Your task to perform on an android device: toggle improve location accuracy Image 0: 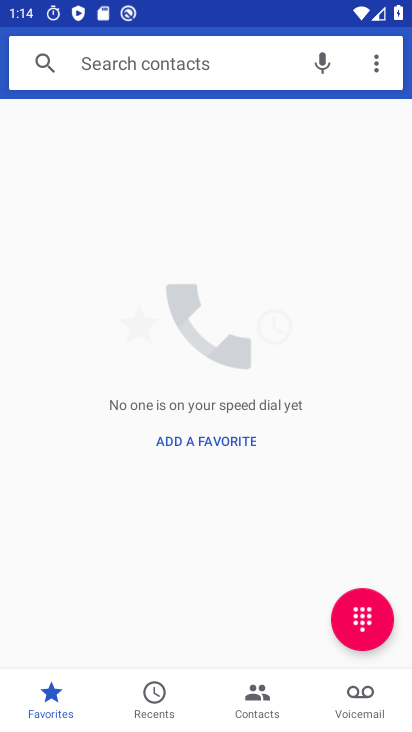
Step 0: press home button
Your task to perform on an android device: toggle improve location accuracy Image 1: 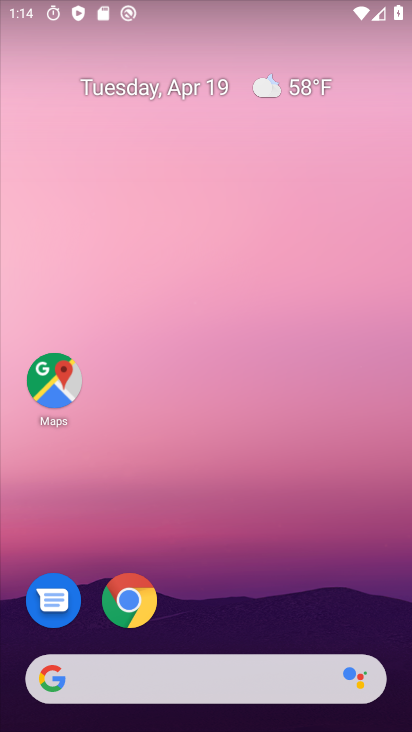
Step 1: drag from (273, 692) to (389, 301)
Your task to perform on an android device: toggle improve location accuracy Image 2: 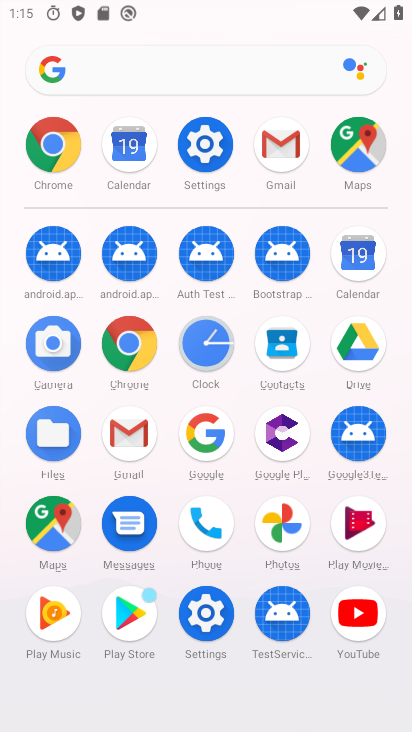
Step 2: click (204, 597)
Your task to perform on an android device: toggle improve location accuracy Image 3: 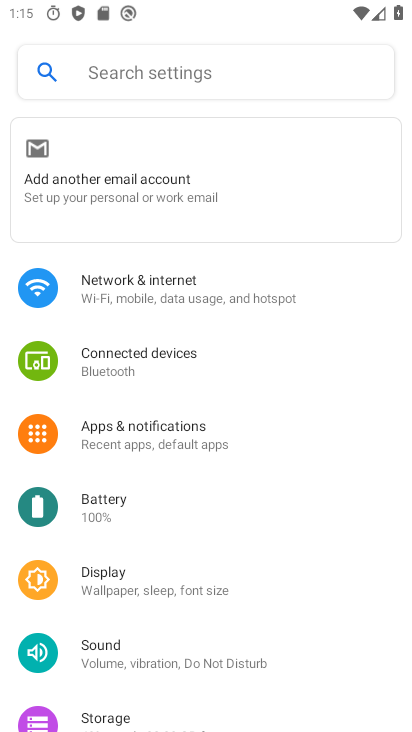
Step 3: click (180, 77)
Your task to perform on an android device: toggle improve location accuracy Image 4: 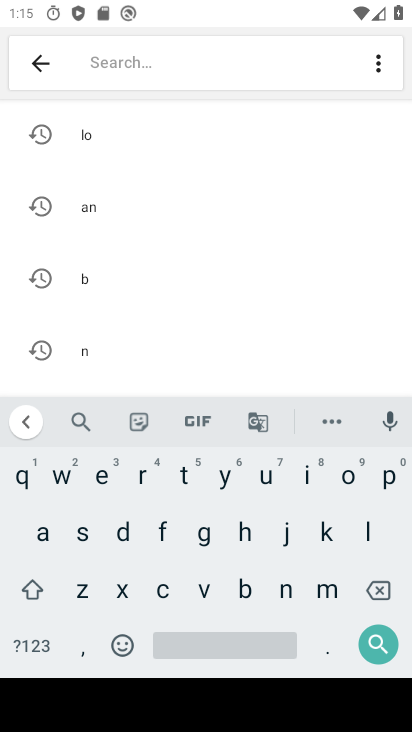
Step 4: click (123, 148)
Your task to perform on an android device: toggle improve location accuracy Image 5: 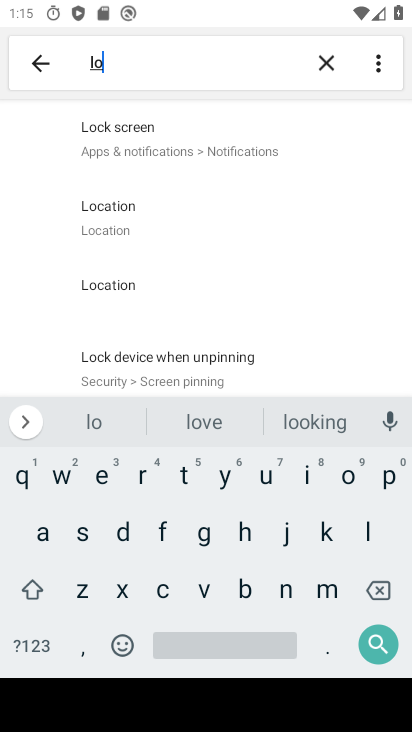
Step 5: click (119, 230)
Your task to perform on an android device: toggle improve location accuracy Image 6: 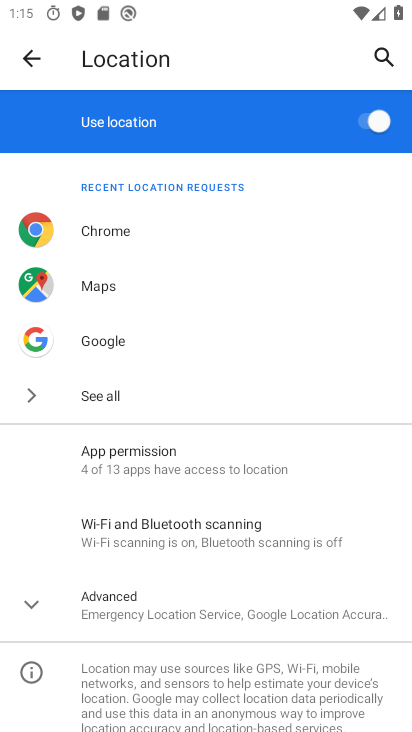
Step 6: click (42, 596)
Your task to perform on an android device: toggle improve location accuracy Image 7: 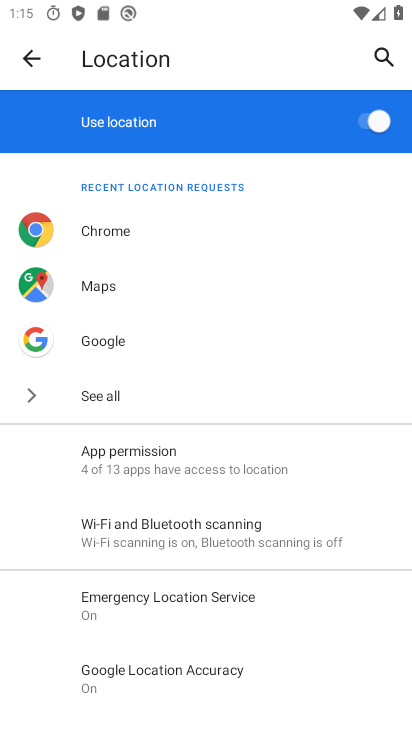
Step 7: click (165, 665)
Your task to perform on an android device: toggle improve location accuracy Image 8: 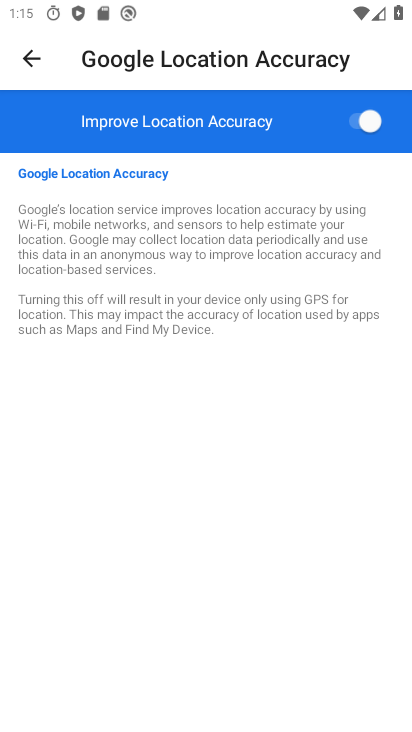
Step 8: task complete